Your task to perform on an android device: find which apps use the phone's location Image 0: 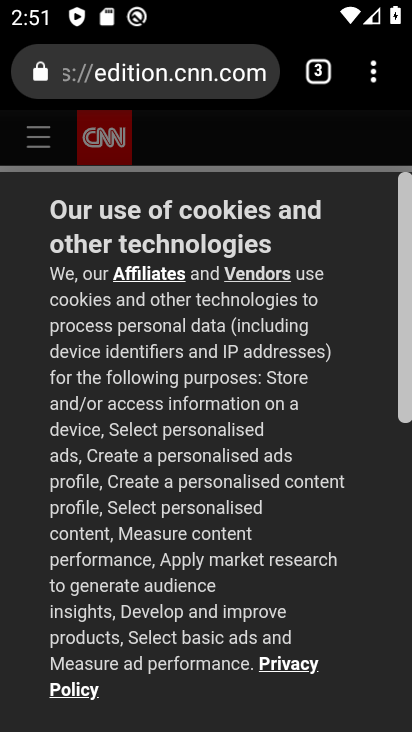
Step 0: press home button
Your task to perform on an android device: find which apps use the phone's location Image 1: 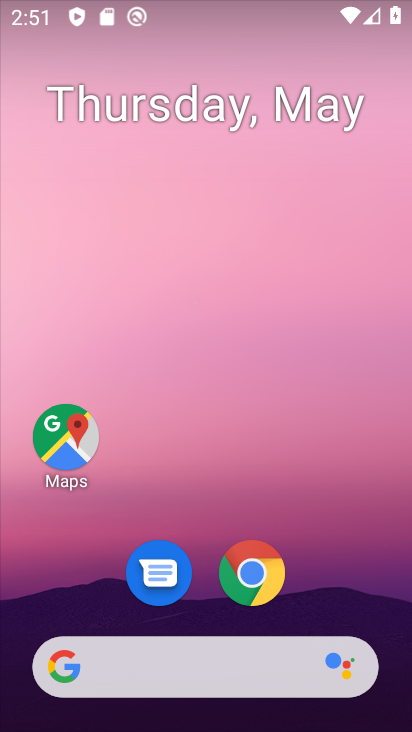
Step 1: drag from (296, 510) to (176, 57)
Your task to perform on an android device: find which apps use the phone's location Image 2: 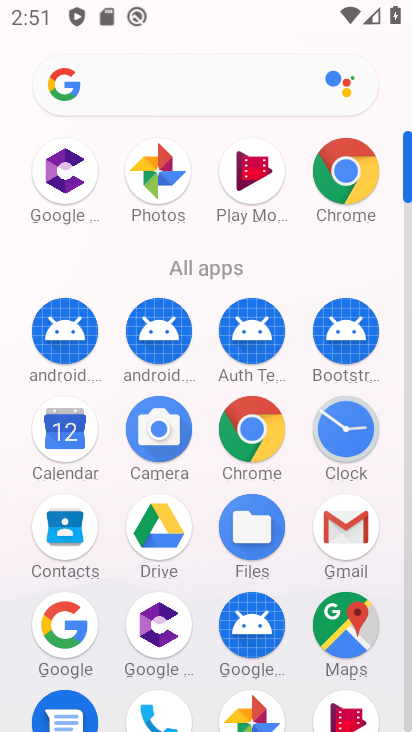
Step 2: drag from (197, 583) to (133, 328)
Your task to perform on an android device: find which apps use the phone's location Image 3: 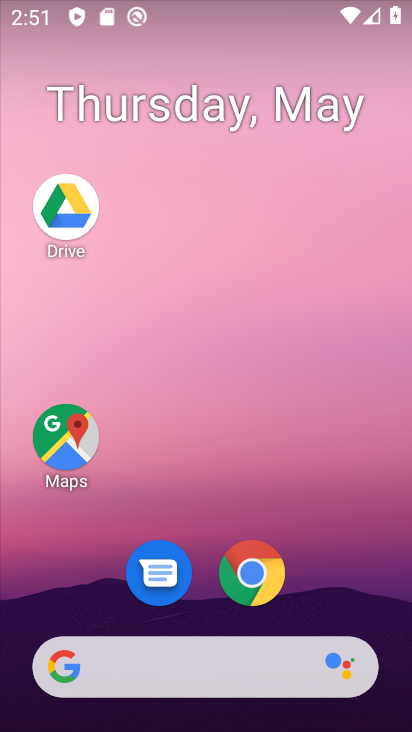
Step 3: drag from (330, 594) to (222, 148)
Your task to perform on an android device: find which apps use the phone's location Image 4: 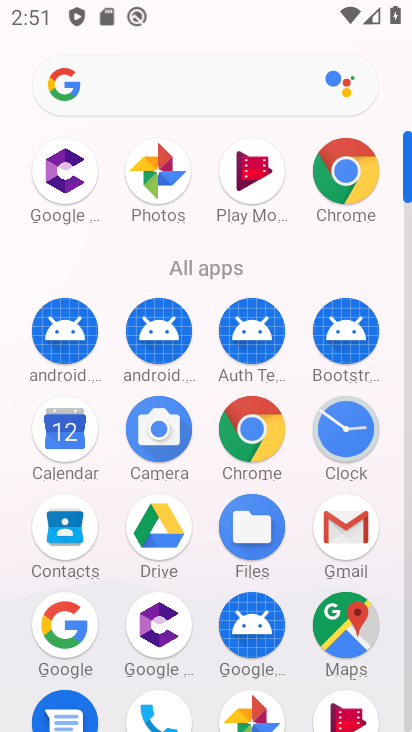
Step 4: drag from (203, 657) to (100, 296)
Your task to perform on an android device: find which apps use the phone's location Image 5: 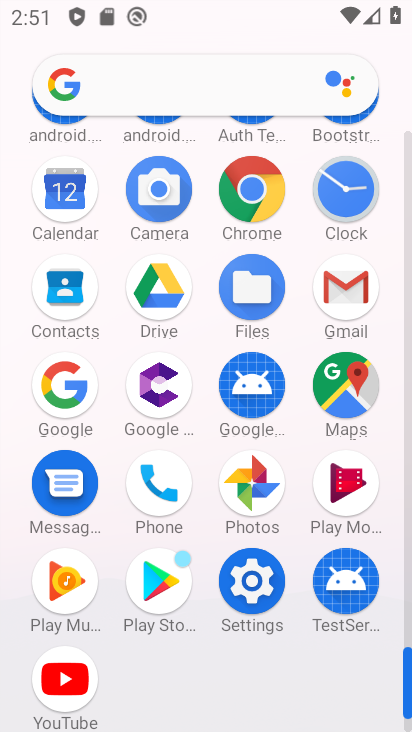
Step 5: click (259, 566)
Your task to perform on an android device: find which apps use the phone's location Image 6: 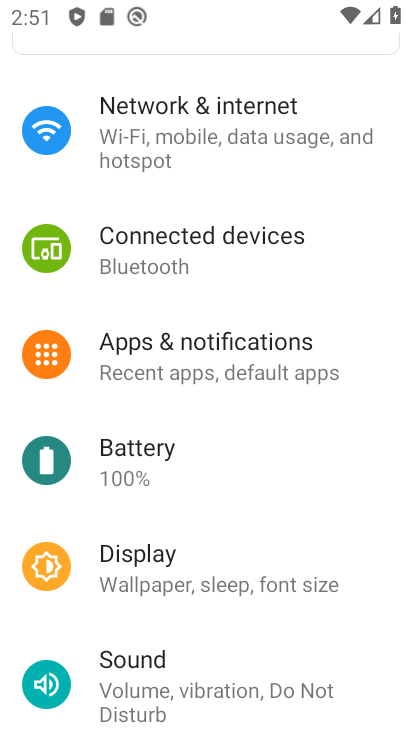
Step 6: click (120, 226)
Your task to perform on an android device: find which apps use the phone's location Image 7: 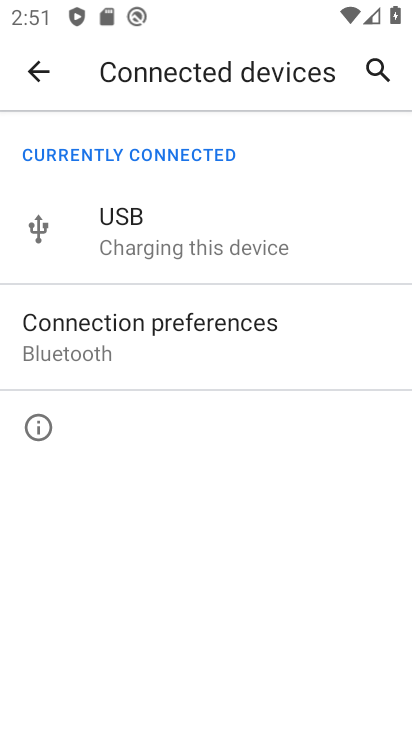
Step 7: click (42, 68)
Your task to perform on an android device: find which apps use the phone's location Image 8: 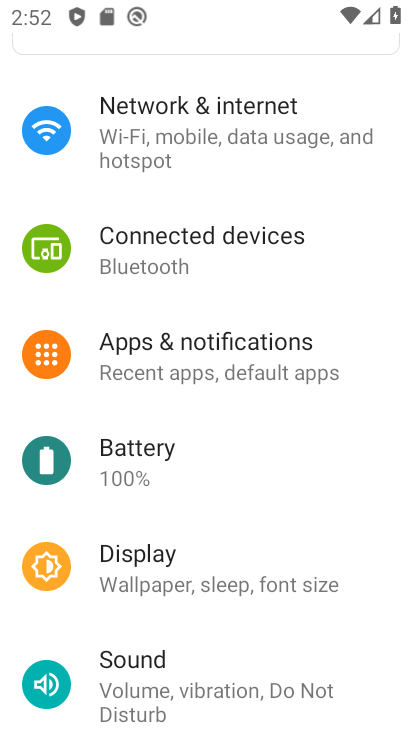
Step 8: drag from (171, 534) to (99, 272)
Your task to perform on an android device: find which apps use the phone's location Image 9: 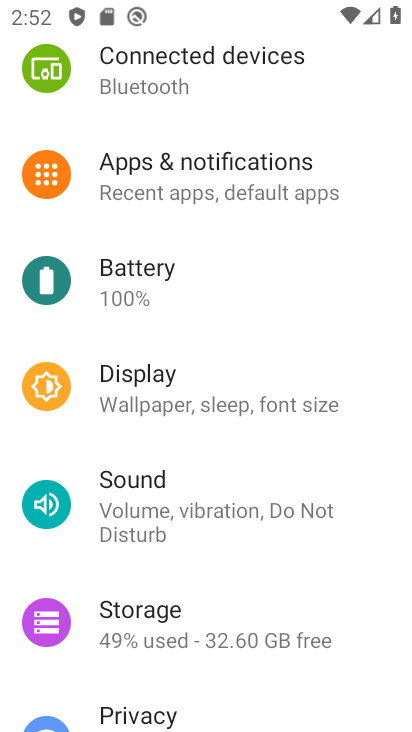
Step 9: drag from (132, 521) to (31, 265)
Your task to perform on an android device: find which apps use the phone's location Image 10: 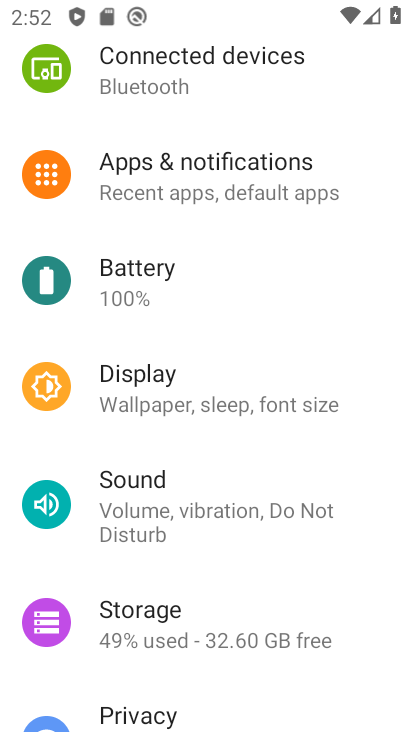
Step 10: drag from (159, 581) to (57, 245)
Your task to perform on an android device: find which apps use the phone's location Image 11: 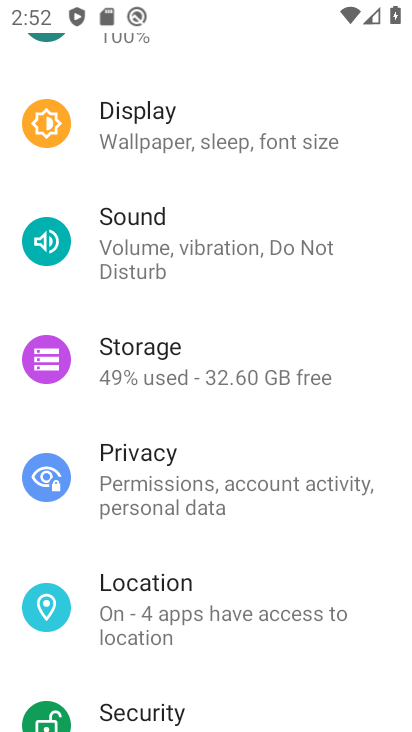
Step 11: click (154, 581)
Your task to perform on an android device: find which apps use the phone's location Image 12: 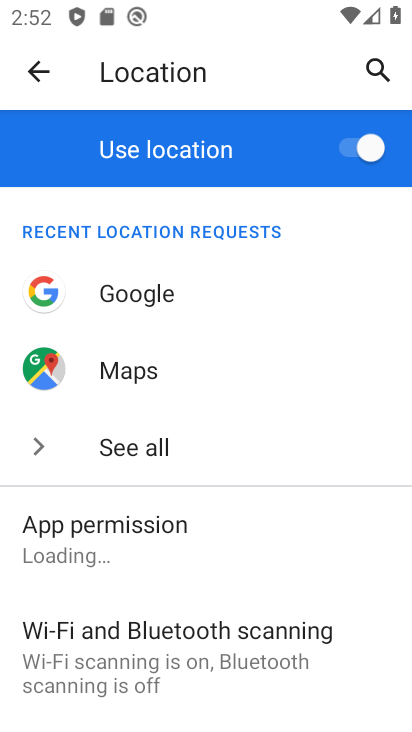
Step 12: drag from (208, 480) to (177, 377)
Your task to perform on an android device: find which apps use the phone's location Image 13: 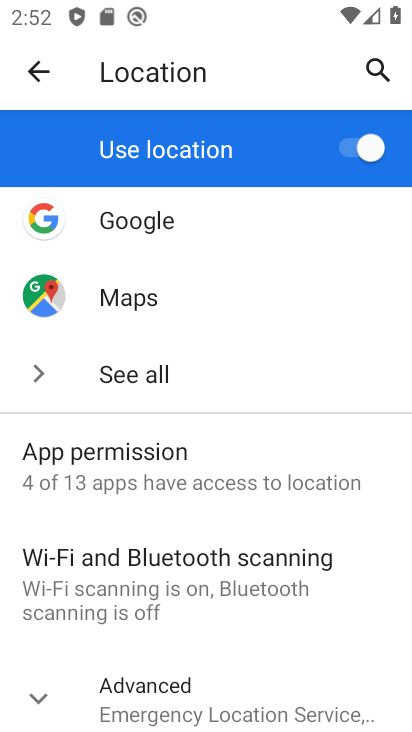
Step 13: click (127, 372)
Your task to perform on an android device: find which apps use the phone's location Image 14: 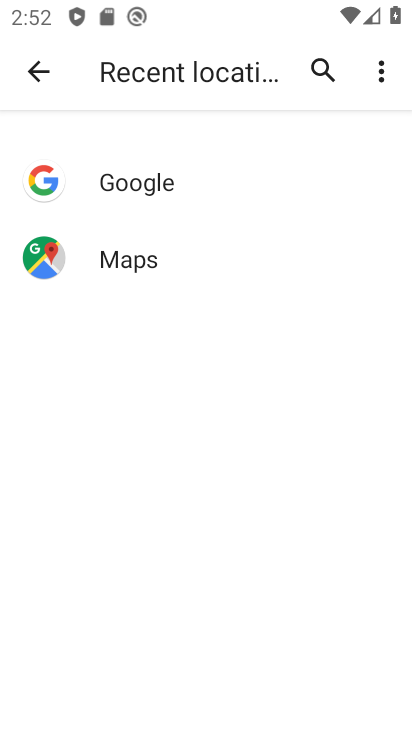
Step 14: task complete